Your task to perform on an android device: Open calendar and show me the first week of next month Image 0: 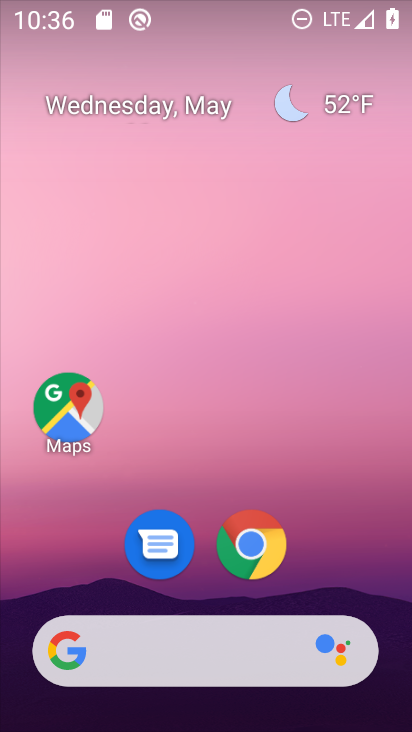
Step 0: click (154, 110)
Your task to perform on an android device: Open calendar and show me the first week of next month Image 1: 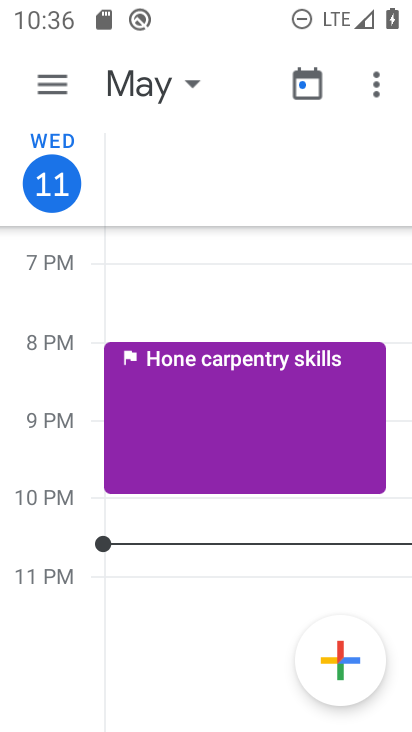
Step 1: click (158, 92)
Your task to perform on an android device: Open calendar and show me the first week of next month Image 2: 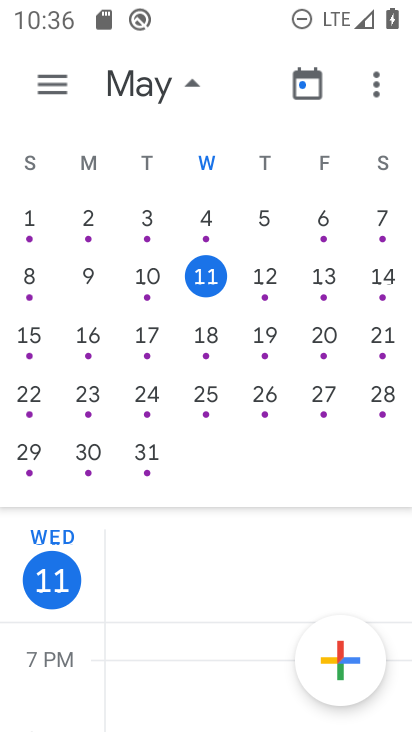
Step 2: task complete